Your task to perform on an android device: turn on priority inbox in the gmail app Image 0: 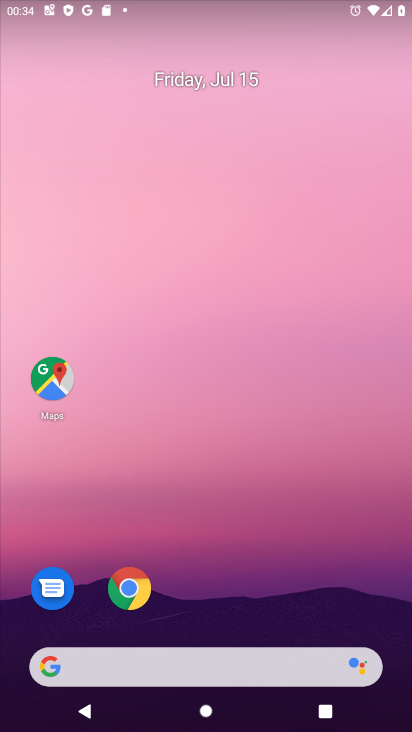
Step 0: press home button
Your task to perform on an android device: turn on priority inbox in the gmail app Image 1: 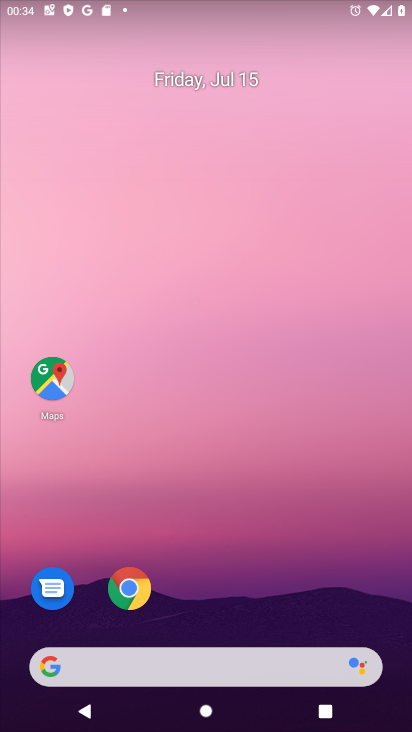
Step 1: drag from (165, 663) to (303, 21)
Your task to perform on an android device: turn on priority inbox in the gmail app Image 2: 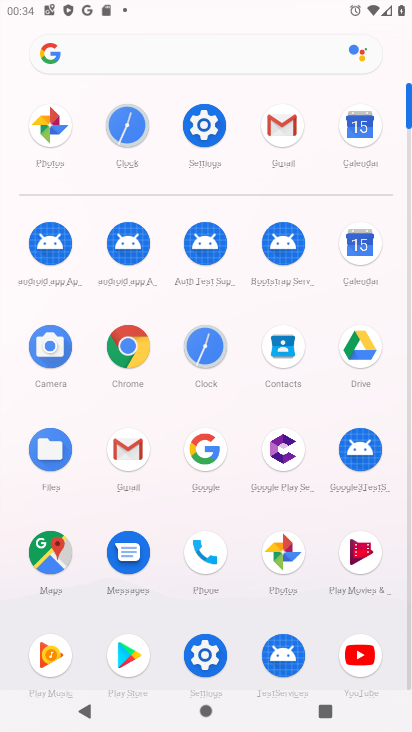
Step 2: click (279, 133)
Your task to perform on an android device: turn on priority inbox in the gmail app Image 3: 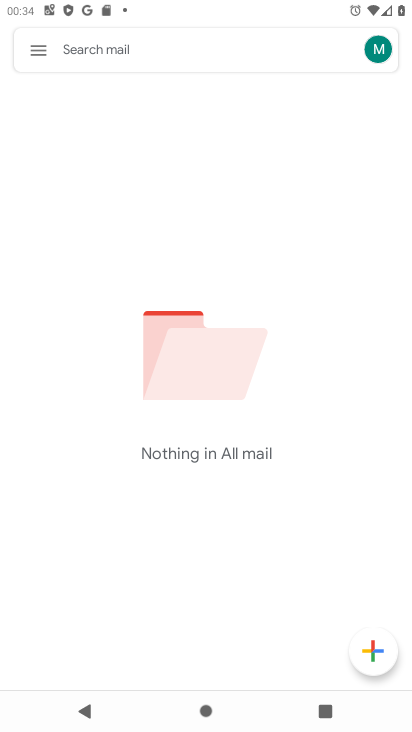
Step 3: click (37, 53)
Your task to perform on an android device: turn on priority inbox in the gmail app Image 4: 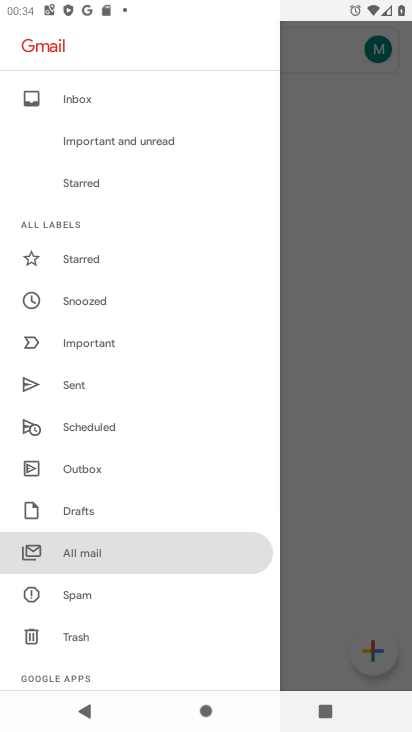
Step 4: drag from (144, 593) to (176, 105)
Your task to perform on an android device: turn on priority inbox in the gmail app Image 5: 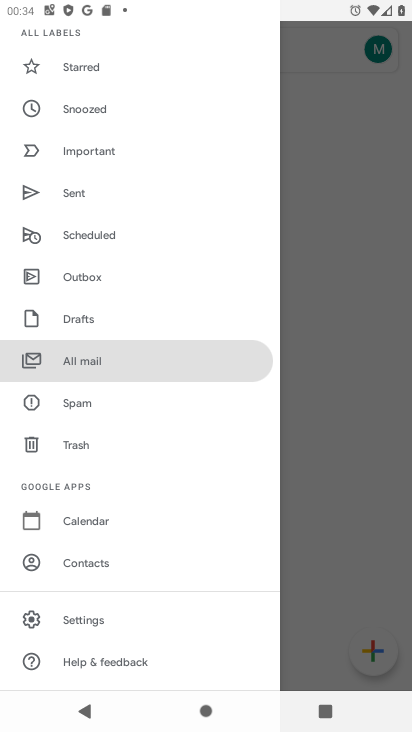
Step 5: click (90, 621)
Your task to perform on an android device: turn on priority inbox in the gmail app Image 6: 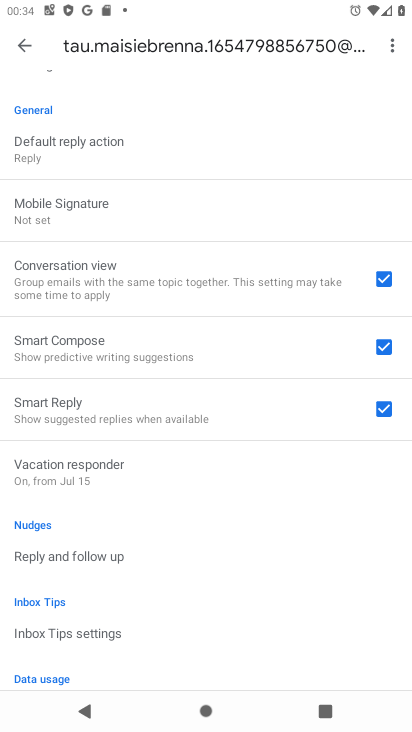
Step 6: drag from (269, 110) to (252, 586)
Your task to perform on an android device: turn on priority inbox in the gmail app Image 7: 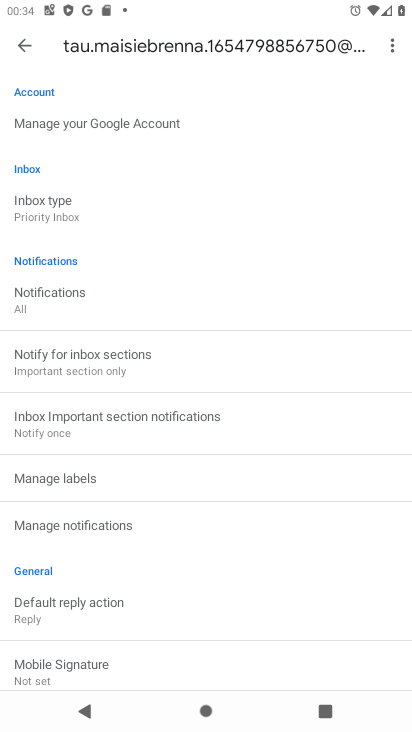
Step 7: click (47, 210)
Your task to perform on an android device: turn on priority inbox in the gmail app Image 8: 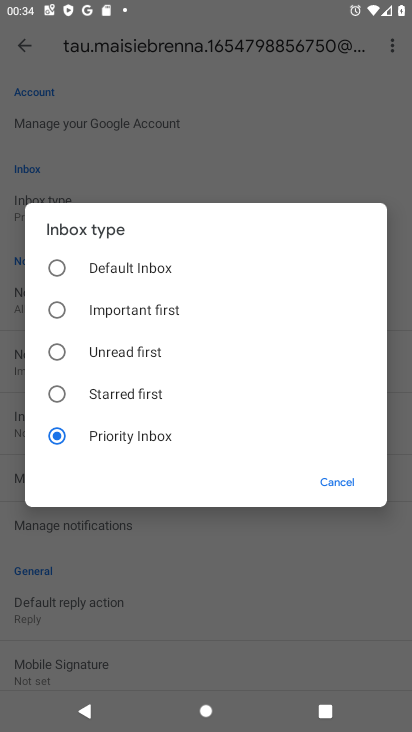
Step 8: task complete